Your task to perform on an android device: Find coffee shops on Maps Image 0: 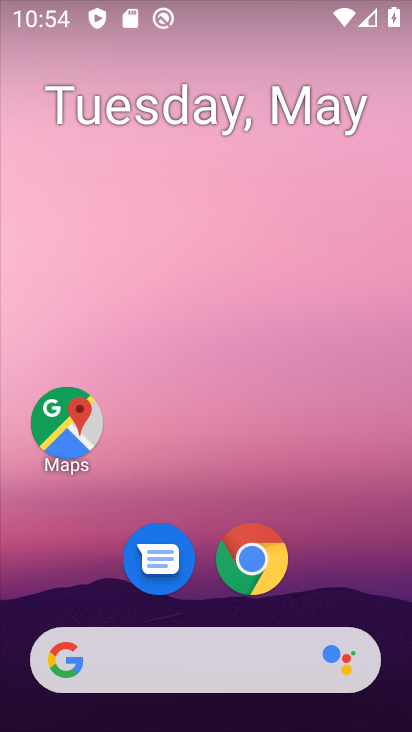
Step 0: click (62, 428)
Your task to perform on an android device: Find coffee shops on Maps Image 1: 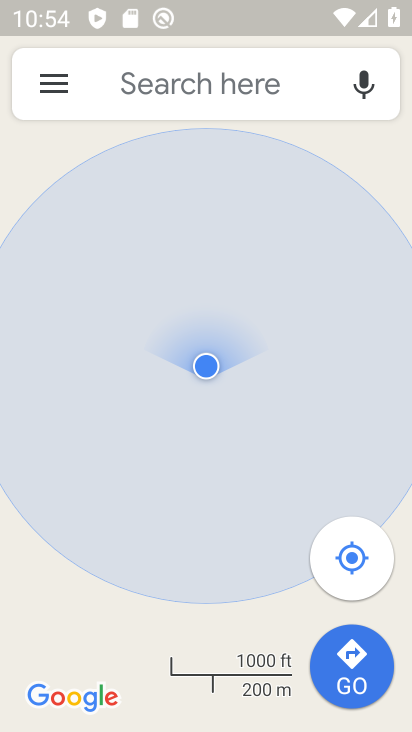
Step 1: click (173, 78)
Your task to perform on an android device: Find coffee shops on Maps Image 2: 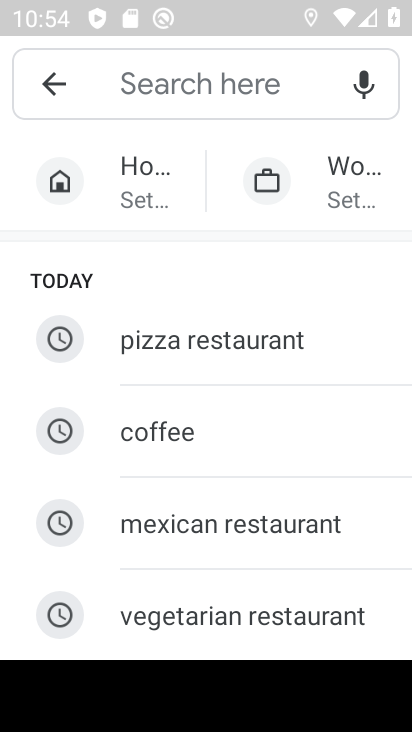
Step 2: click (265, 427)
Your task to perform on an android device: Find coffee shops on Maps Image 3: 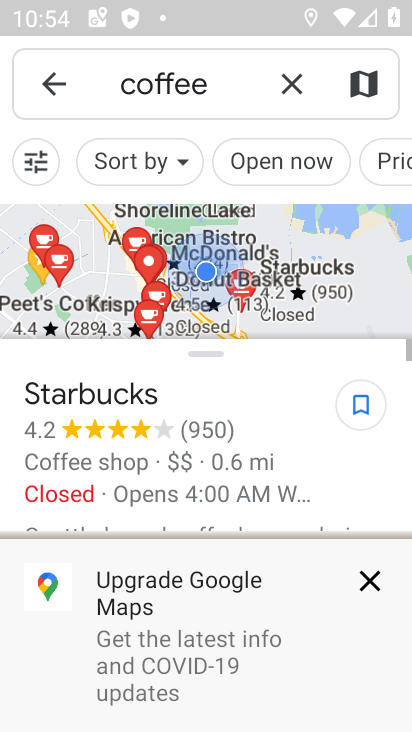
Step 3: task complete